Your task to perform on an android device: turn on bluetooth scan Image 0: 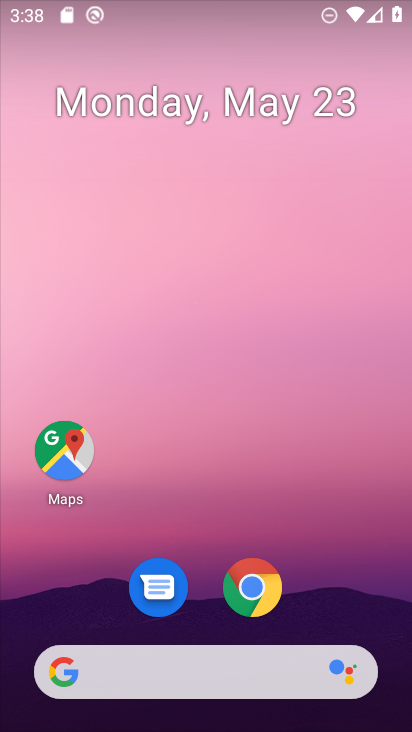
Step 0: drag from (206, 611) to (359, 4)
Your task to perform on an android device: turn on bluetooth scan Image 1: 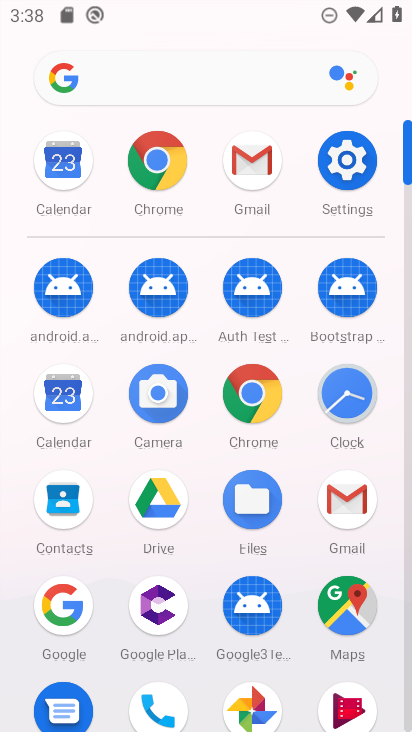
Step 1: click (351, 181)
Your task to perform on an android device: turn on bluetooth scan Image 2: 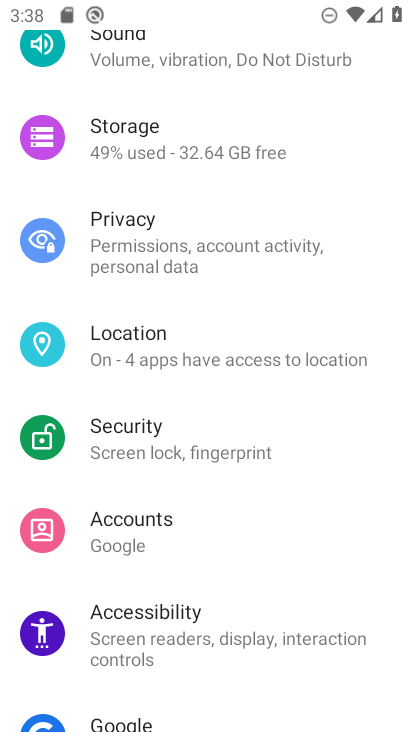
Step 2: click (183, 353)
Your task to perform on an android device: turn on bluetooth scan Image 3: 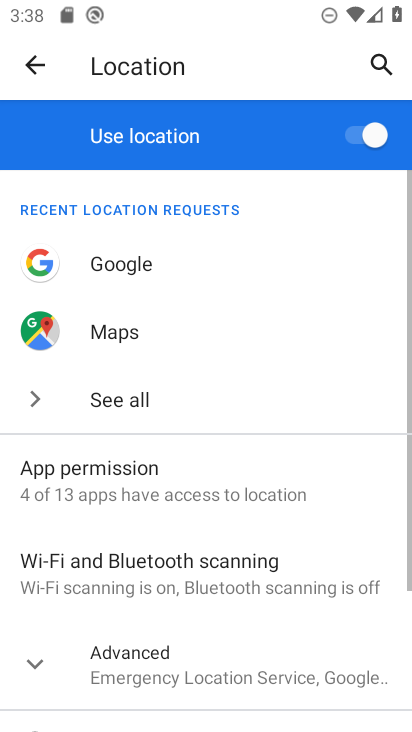
Step 3: drag from (204, 603) to (296, 299)
Your task to perform on an android device: turn on bluetooth scan Image 4: 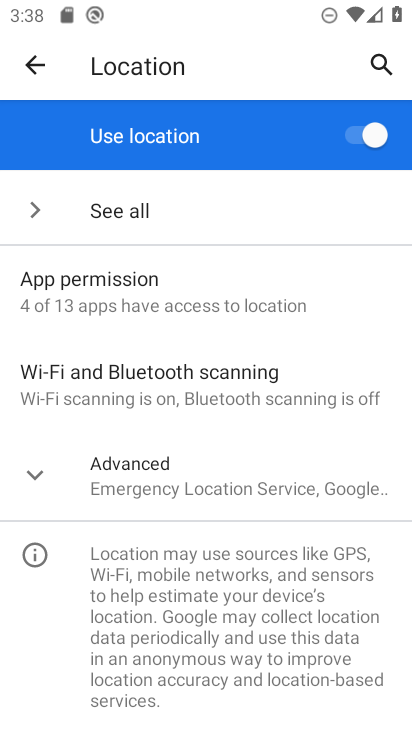
Step 4: click (208, 502)
Your task to perform on an android device: turn on bluetooth scan Image 5: 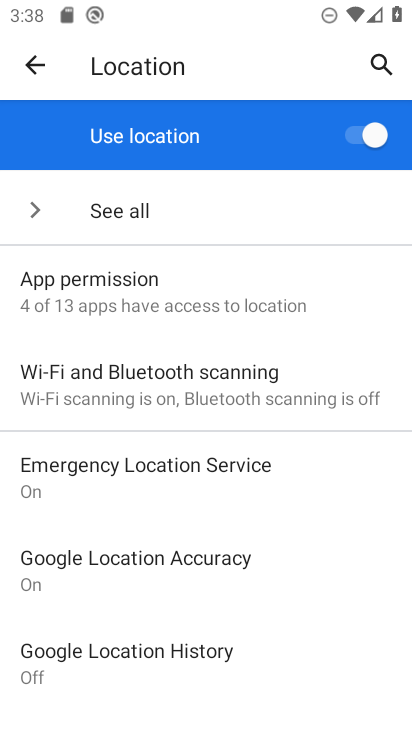
Step 5: drag from (209, 656) to (214, 473)
Your task to perform on an android device: turn on bluetooth scan Image 6: 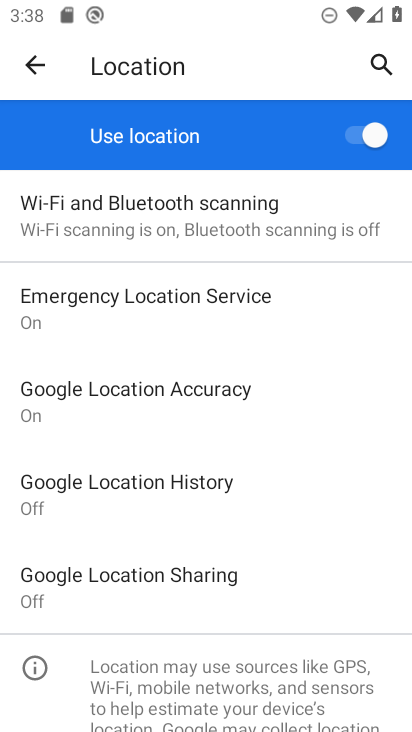
Step 6: click (230, 227)
Your task to perform on an android device: turn on bluetooth scan Image 7: 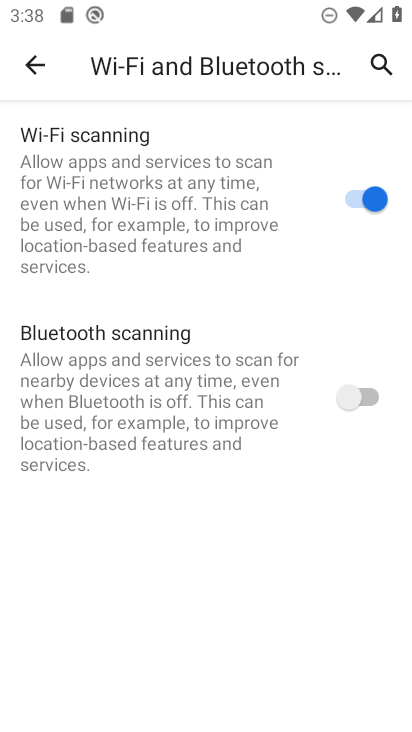
Step 7: click (304, 416)
Your task to perform on an android device: turn on bluetooth scan Image 8: 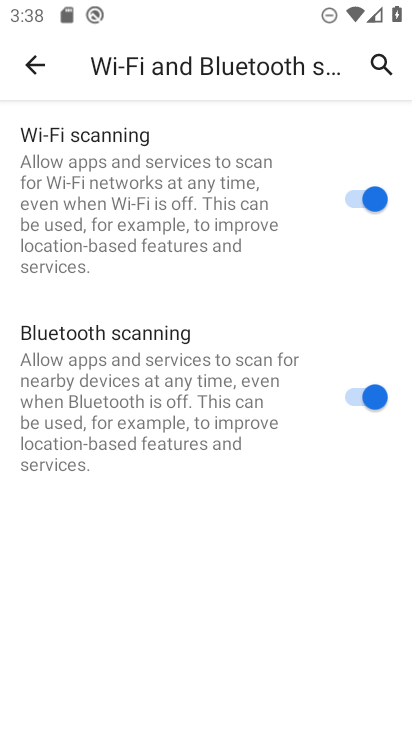
Step 8: task complete